Your task to perform on an android device: Show me popular games on the Play Store Image 0: 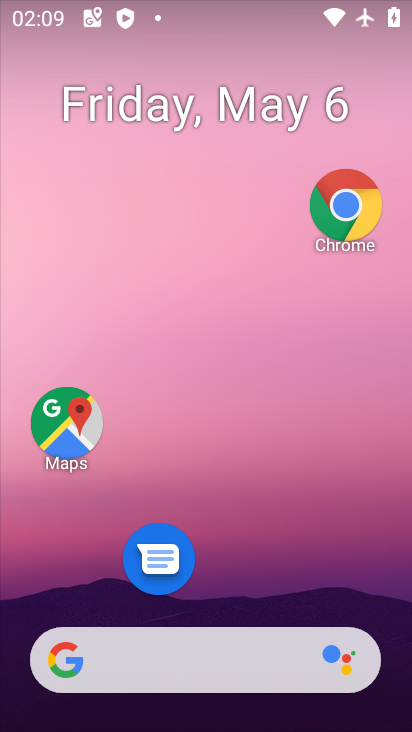
Step 0: drag from (227, 632) to (337, 36)
Your task to perform on an android device: Show me popular games on the Play Store Image 1: 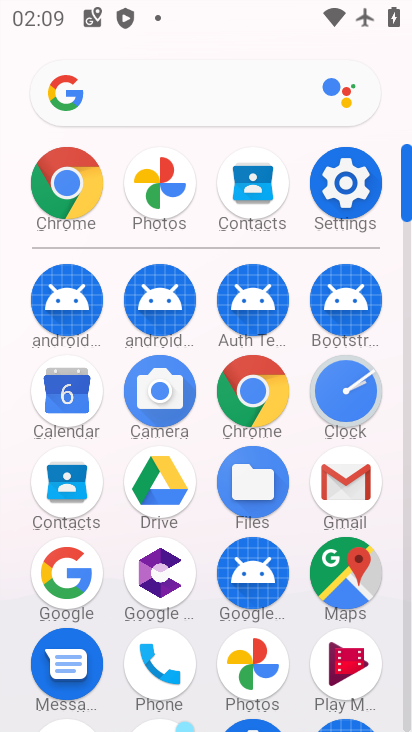
Step 1: drag from (190, 647) to (344, 195)
Your task to perform on an android device: Show me popular games on the Play Store Image 2: 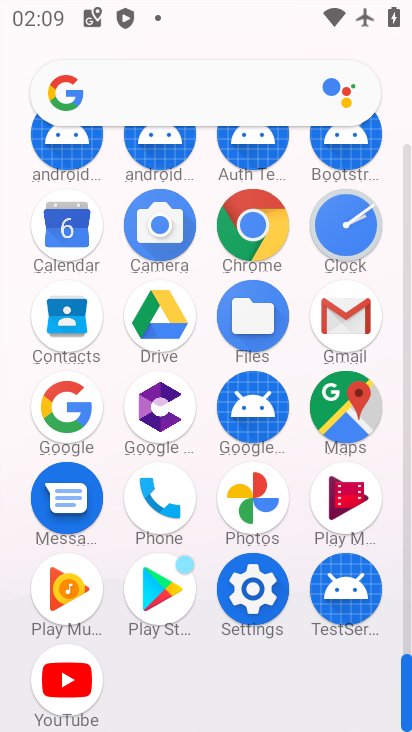
Step 2: click (161, 586)
Your task to perform on an android device: Show me popular games on the Play Store Image 3: 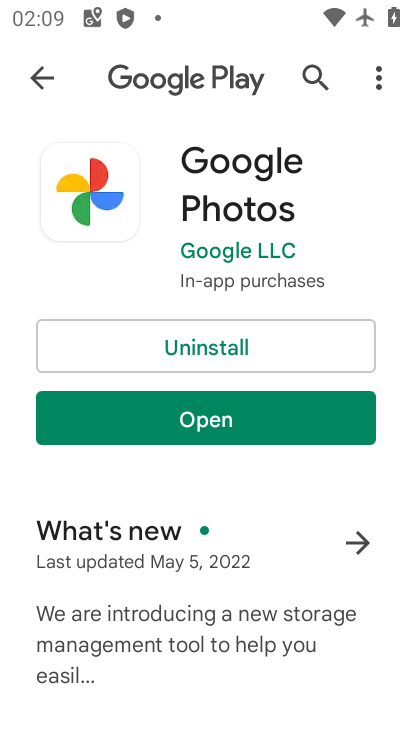
Step 3: click (43, 77)
Your task to perform on an android device: Show me popular games on the Play Store Image 4: 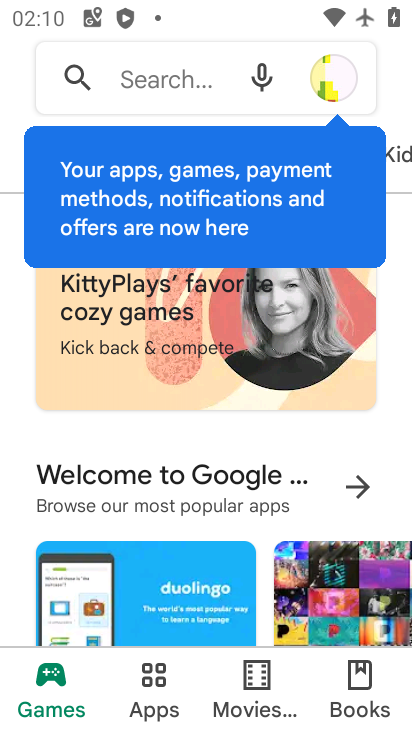
Step 4: drag from (174, 572) to (409, 133)
Your task to perform on an android device: Show me popular games on the Play Store Image 5: 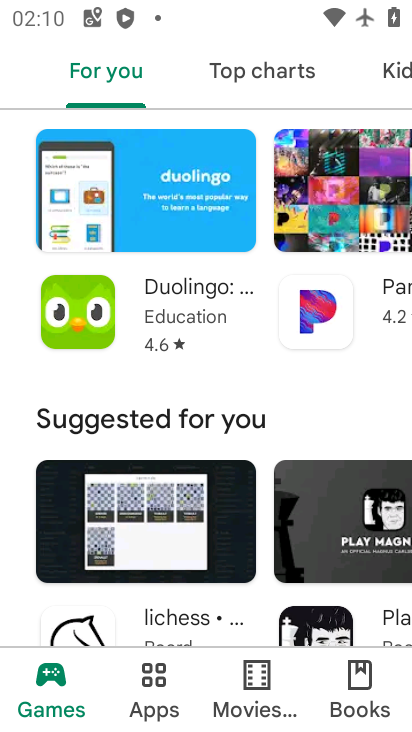
Step 5: drag from (201, 529) to (338, 194)
Your task to perform on an android device: Show me popular games on the Play Store Image 6: 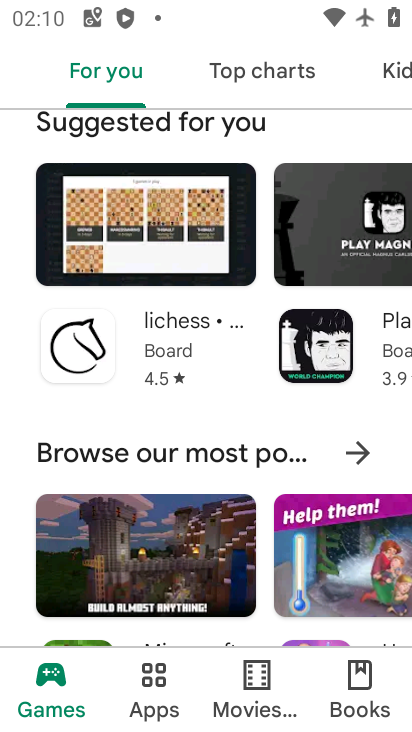
Step 6: click (268, 454)
Your task to perform on an android device: Show me popular games on the Play Store Image 7: 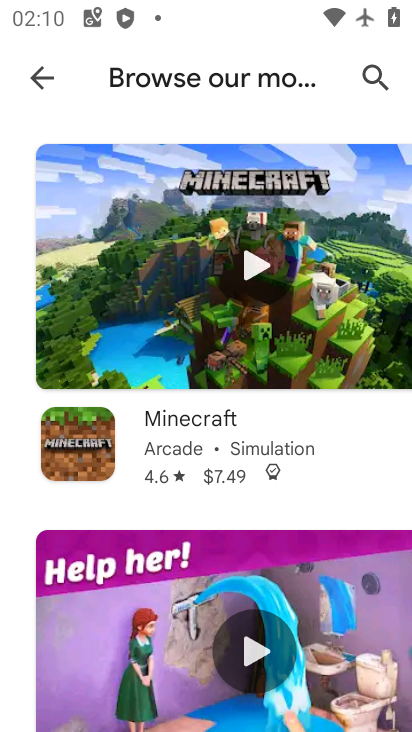
Step 7: task complete